Your task to perform on an android device: change the clock style Image 0: 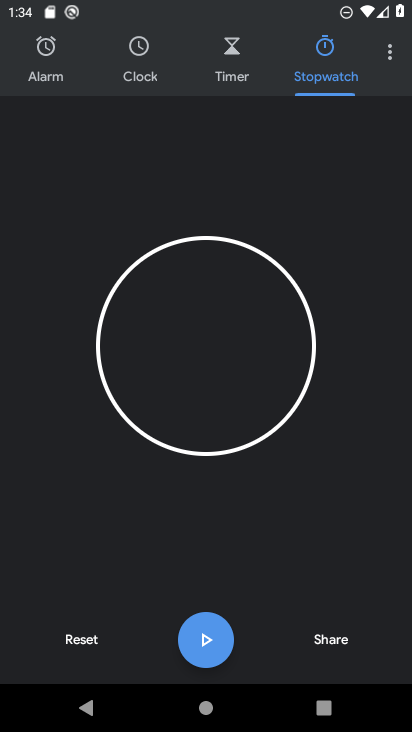
Step 0: press home button
Your task to perform on an android device: change the clock style Image 1: 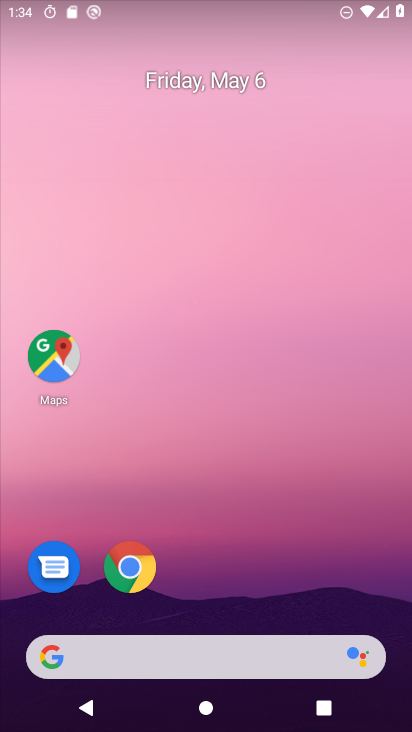
Step 1: drag from (307, 685) to (271, 248)
Your task to perform on an android device: change the clock style Image 2: 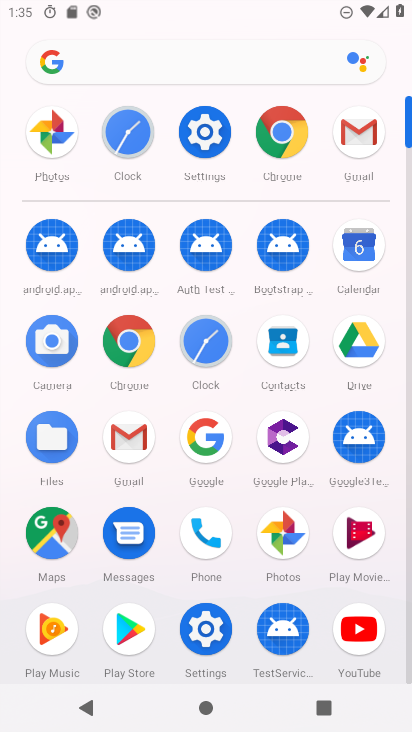
Step 2: click (197, 358)
Your task to perform on an android device: change the clock style Image 3: 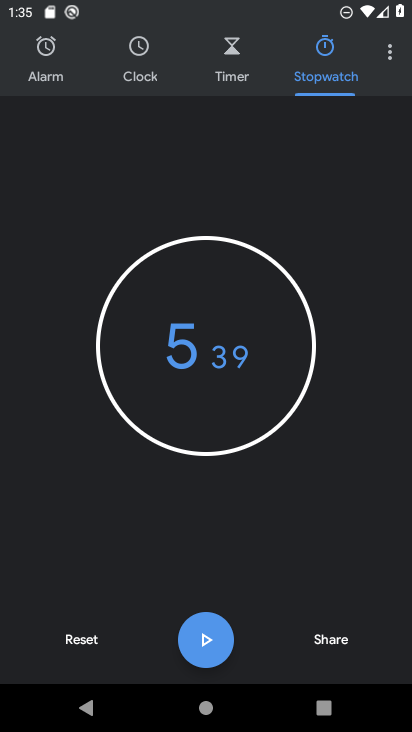
Step 3: click (380, 62)
Your task to perform on an android device: change the clock style Image 4: 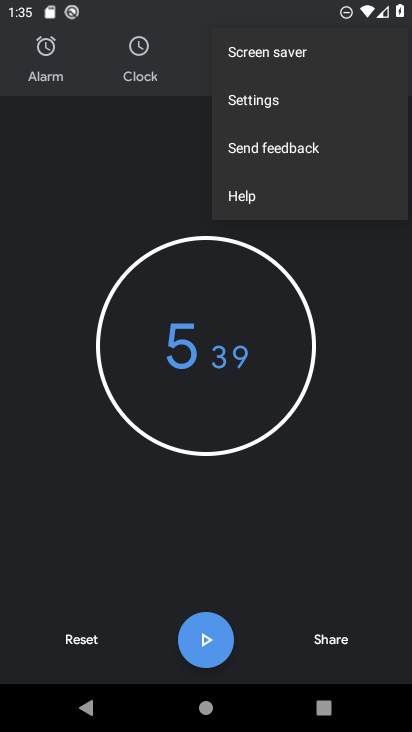
Step 4: click (258, 99)
Your task to perform on an android device: change the clock style Image 5: 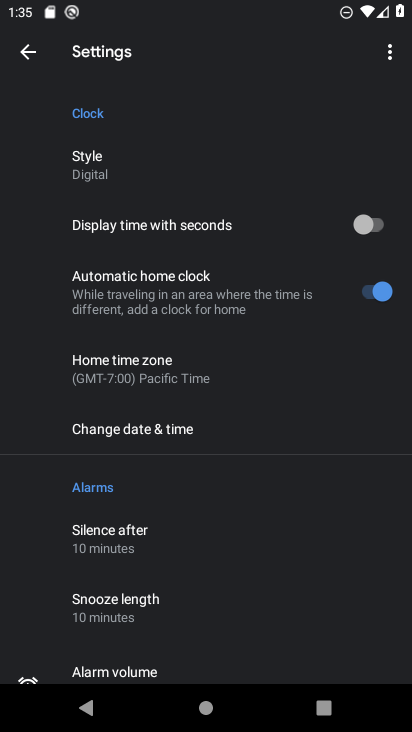
Step 5: click (98, 163)
Your task to perform on an android device: change the clock style Image 6: 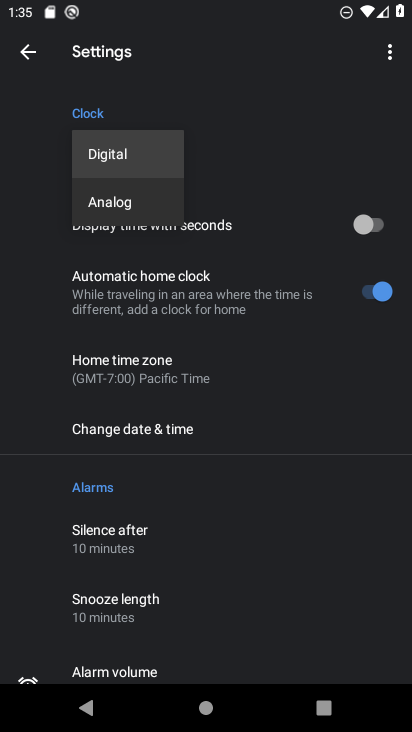
Step 6: click (99, 197)
Your task to perform on an android device: change the clock style Image 7: 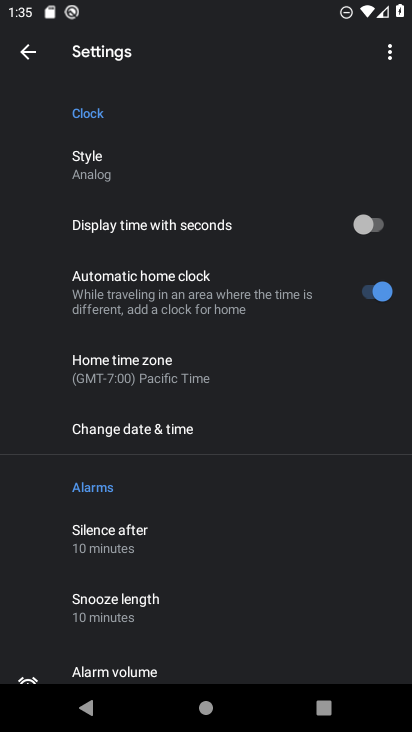
Step 7: task complete